Your task to perform on an android device: Open ESPN.com Image 0: 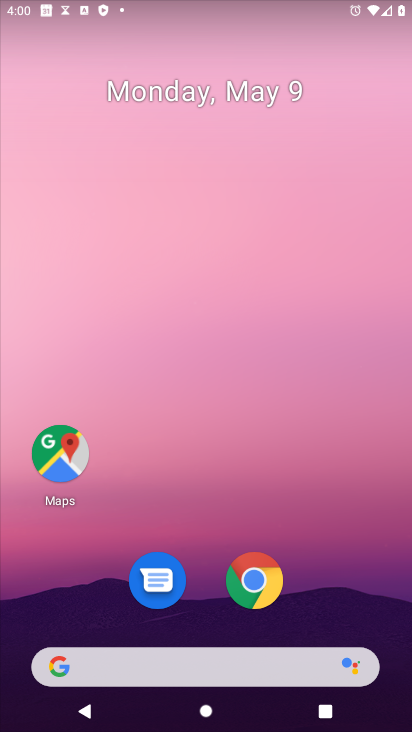
Step 0: click (261, 579)
Your task to perform on an android device: Open ESPN.com Image 1: 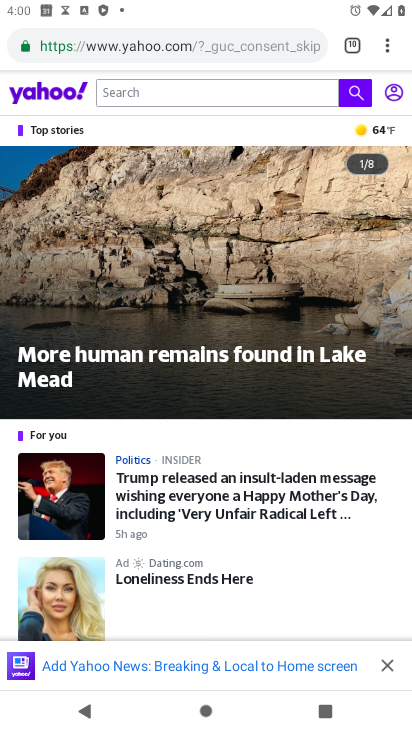
Step 1: click (348, 42)
Your task to perform on an android device: Open ESPN.com Image 2: 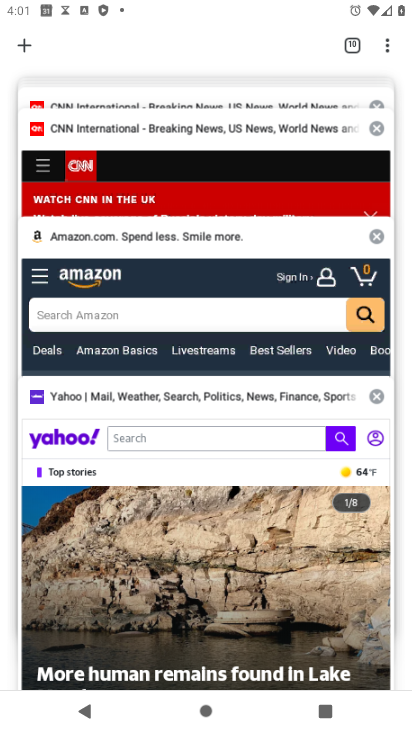
Step 2: click (24, 46)
Your task to perform on an android device: Open ESPN.com Image 3: 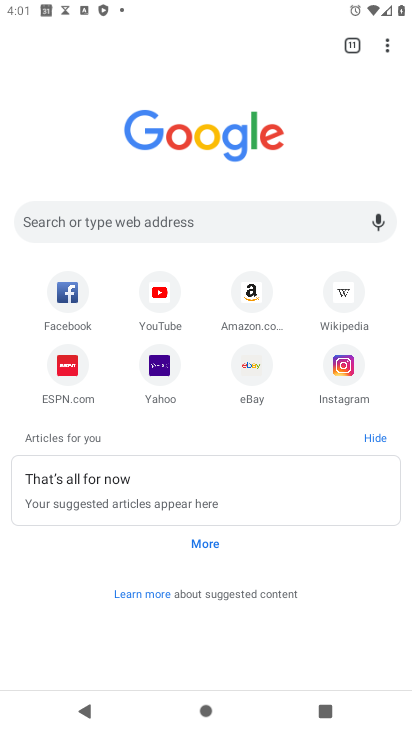
Step 3: click (58, 368)
Your task to perform on an android device: Open ESPN.com Image 4: 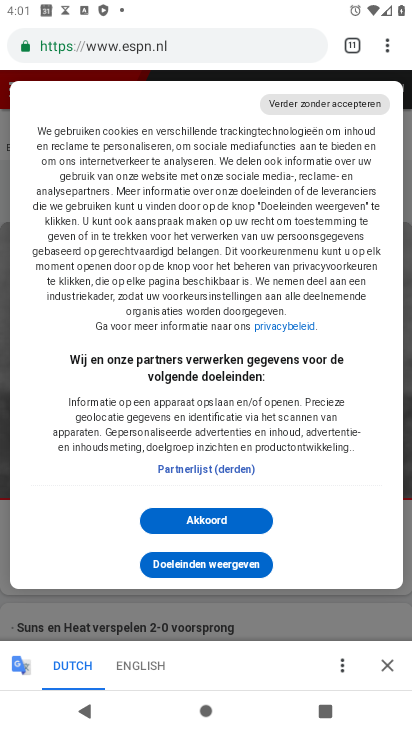
Step 4: task complete